Your task to perform on an android device: Set the phone to "Do not disturb". Image 0: 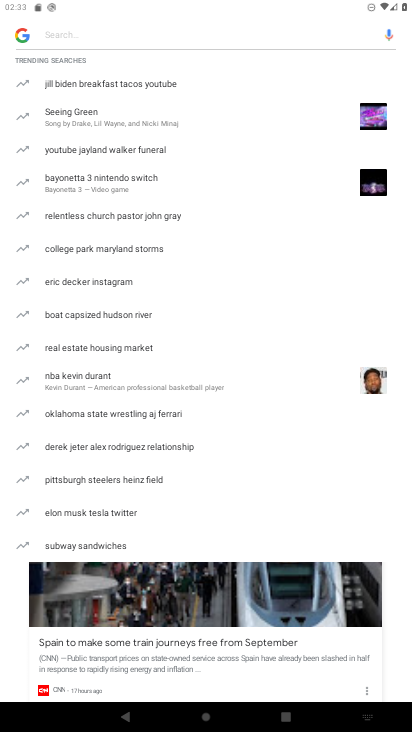
Step 0: press back button
Your task to perform on an android device: Set the phone to "Do not disturb". Image 1: 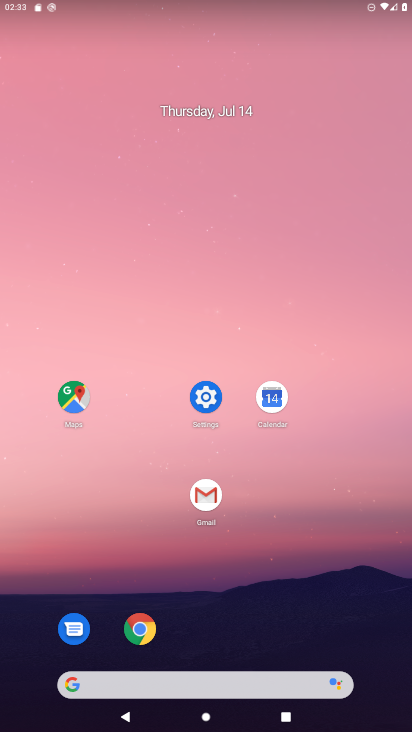
Step 1: drag from (383, 631) to (359, 175)
Your task to perform on an android device: Set the phone to "Do not disturb". Image 2: 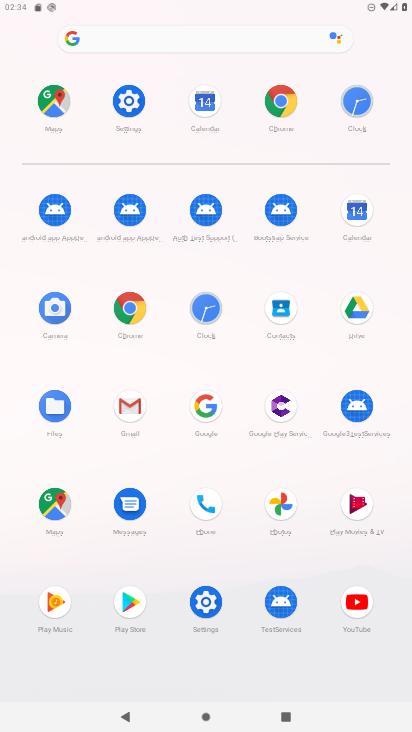
Step 2: click (134, 95)
Your task to perform on an android device: Set the phone to "Do not disturb". Image 3: 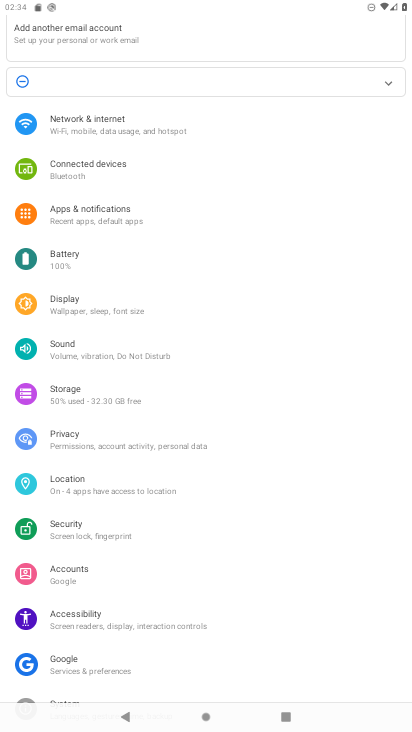
Step 3: click (60, 350)
Your task to perform on an android device: Set the phone to "Do not disturb". Image 4: 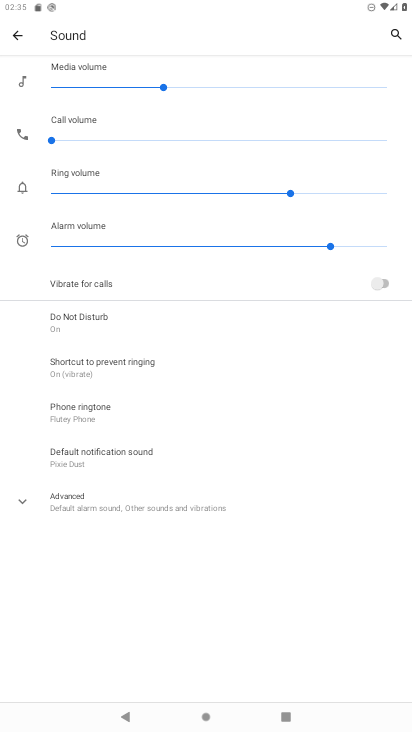
Step 4: task complete